Your task to perform on an android device: Search for Italian restaurants on Maps Image 0: 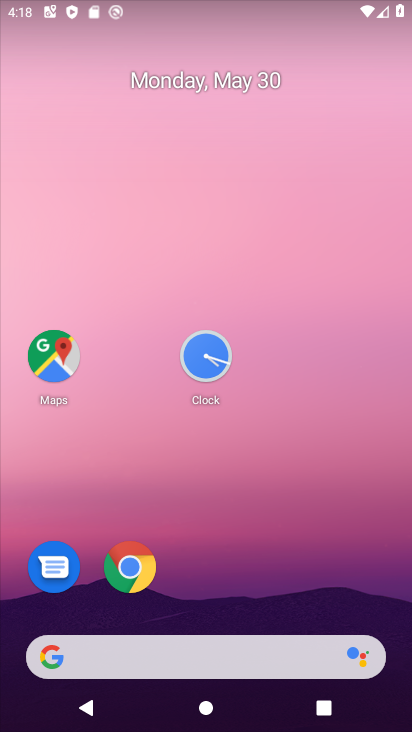
Step 0: drag from (298, 514) to (249, 68)
Your task to perform on an android device: Search for Italian restaurants on Maps Image 1: 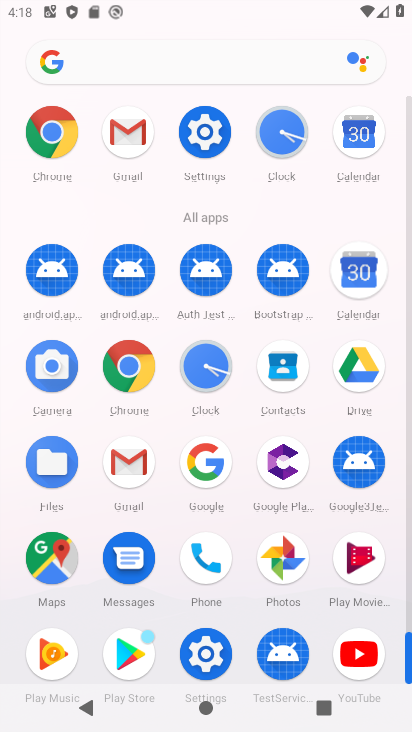
Step 1: click (47, 564)
Your task to perform on an android device: Search for Italian restaurants on Maps Image 2: 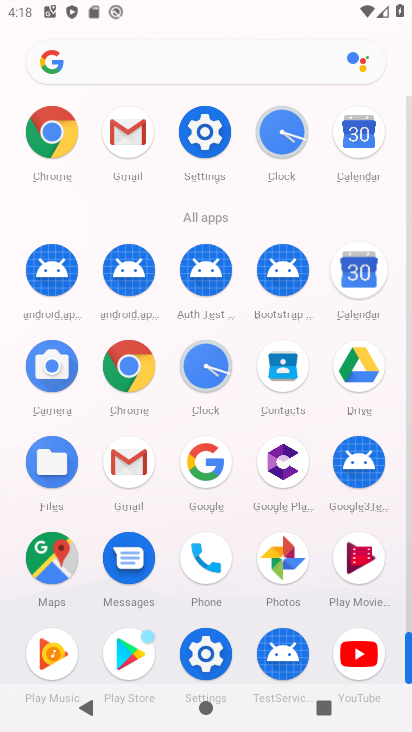
Step 2: click (46, 563)
Your task to perform on an android device: Search for Italian restaurants on Maps Image 3: 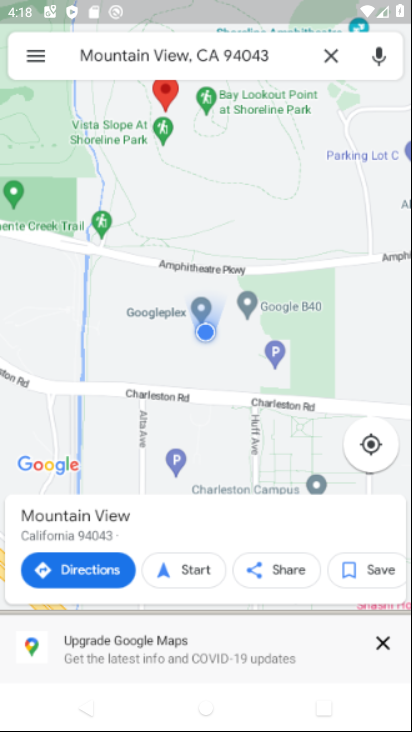
Step 3: click (46, 563)
Your task to perform on an android device: Search for Italian restaurants on Maps Image 4: 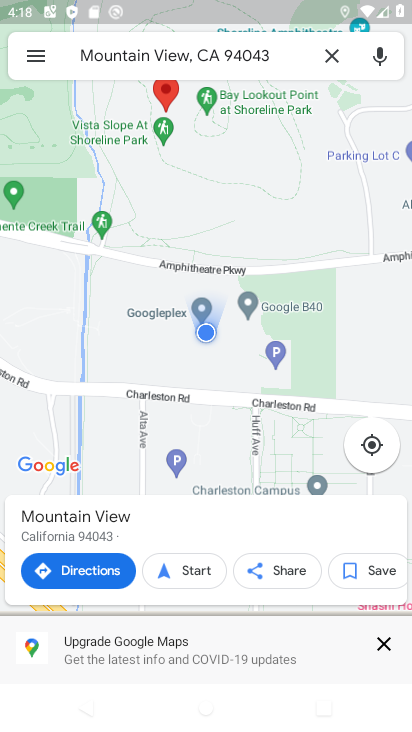
Step 4: press back button
Your task to perform on an android device: Search for Italian restaurants on Maps Image 5: 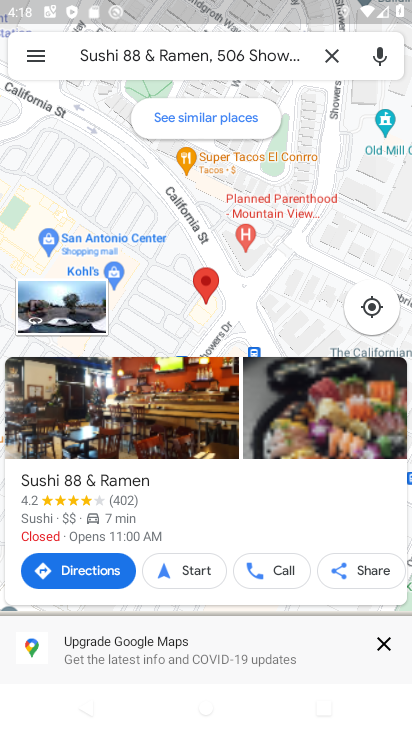
Step 5: click (323, 61)
Your task to perform on an android device: Search for Italian restaurants on Maps Image 6: 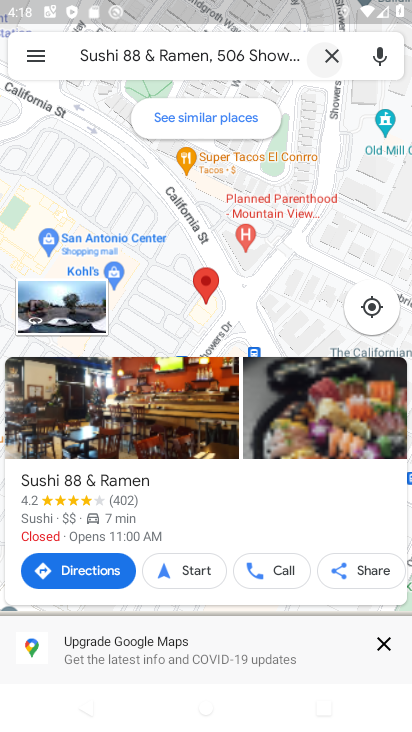
Step 6: click (323, 61)
Your task to perform on an android device: Search for Italian restaurants on Maps Image 7: 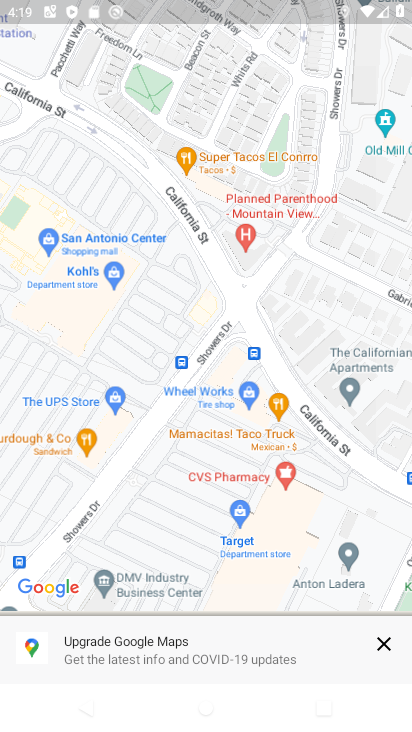
Step 7: click (69, 53)
Your task to perform on an android device: Search for Italian restaurants on Maps Image 8: 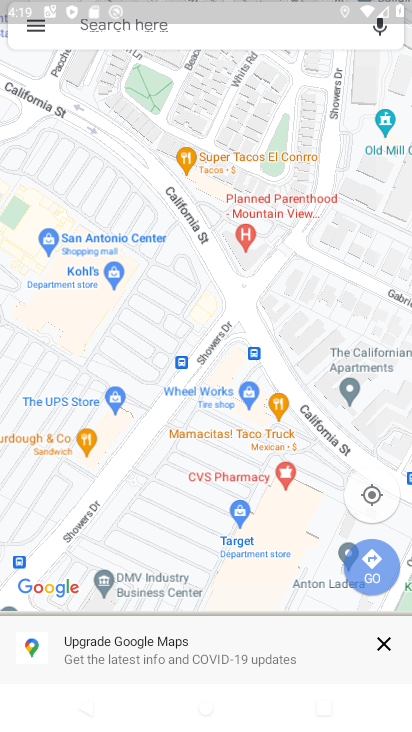
Step 8: drag from (153, 235) to (184, 411)
Your task to perform on an android device: Search for Italian restaurants on Maps Image 9: 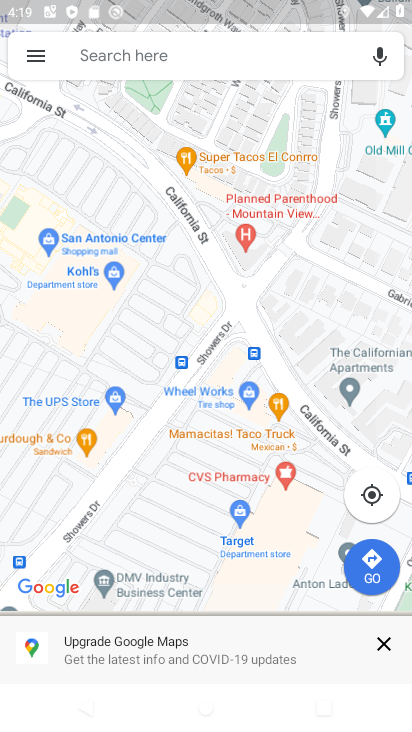
Step 9: drag from (180, 98) to (220, 335)
Your task to perform on an android device: Search for Italian restaurants on Maps Image 10: 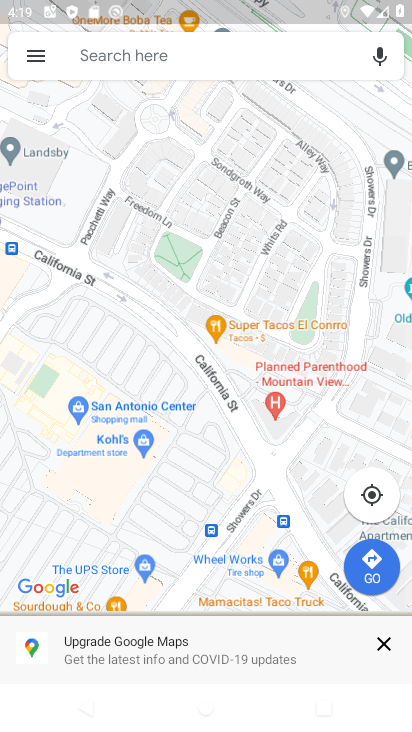
Step 10: drag from (195, 105) to (204, 310)
Your task to perform on an android device: Search for Italian restaurants on Maps Image 11: 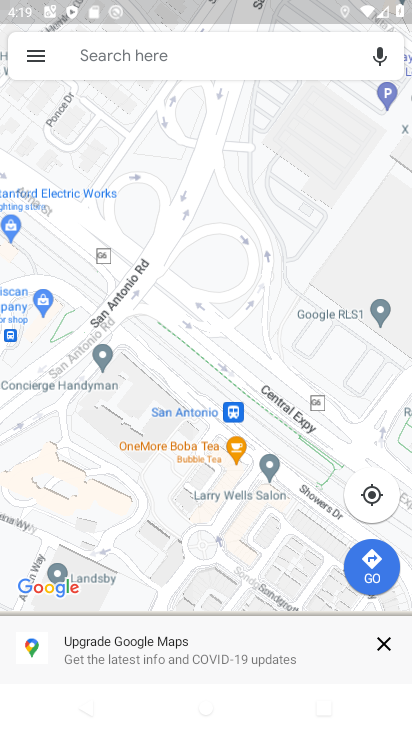
Step 11: click (86, 52)
Your task to perform on an android device: Search for Italian restaurants on Maps Image 12: 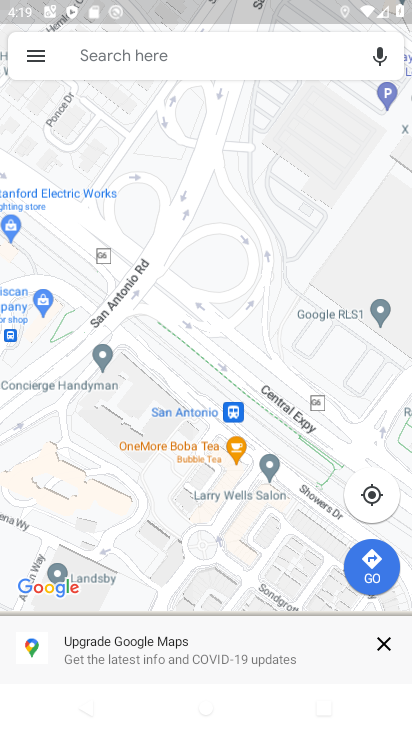
Step 12: click (86, 52)
Your task to perform on an android device: Search for Italian restaurants on Maps Image 13: 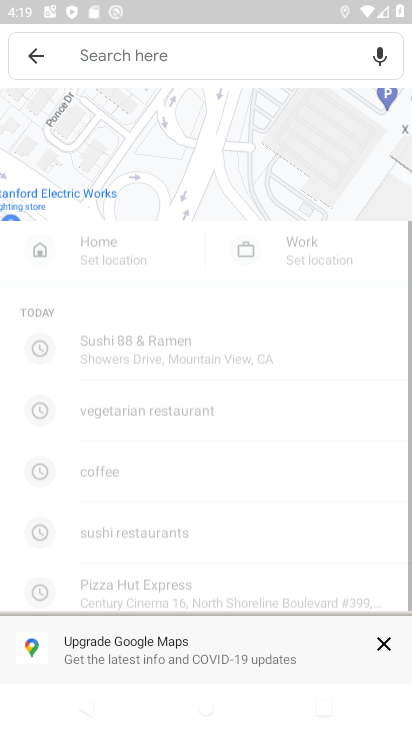
Step 13: click (86, 52)
Your task to perform on an android device: Search for Italian restaurants on Maps Image 14: 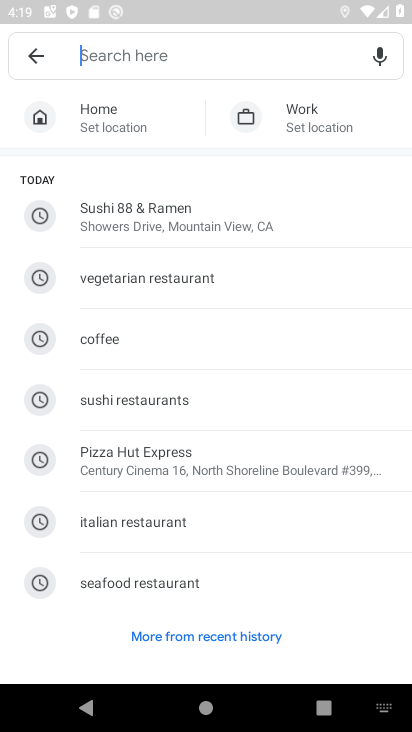
Step 14: click (85, 54)
Your task to perform on an android device: Search for Italian restaurants on Maps Image 15: 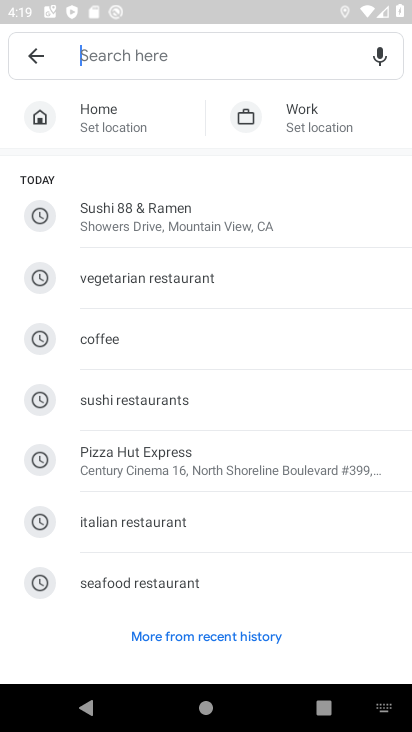
Step 15: click (79, 55)
Your task to perform on an android device: Search for Italian restaurants on Maps Image 16: 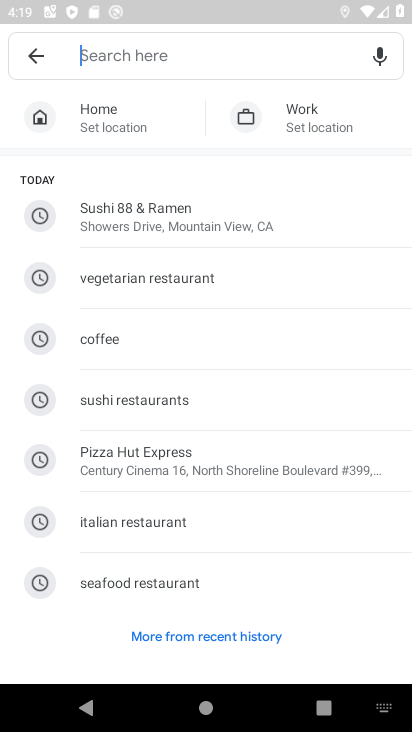
Step 16: click (127, 522)
Your task to perform on an android device: Search for Italian restaurants on Maps Image 17: 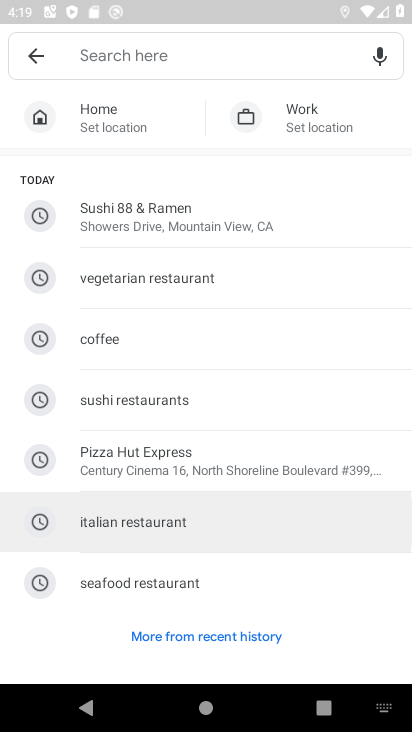
Step 17: click (127, 522)
Your task to perform on an android device: Search for Italian restaurants on Maps Image 18: 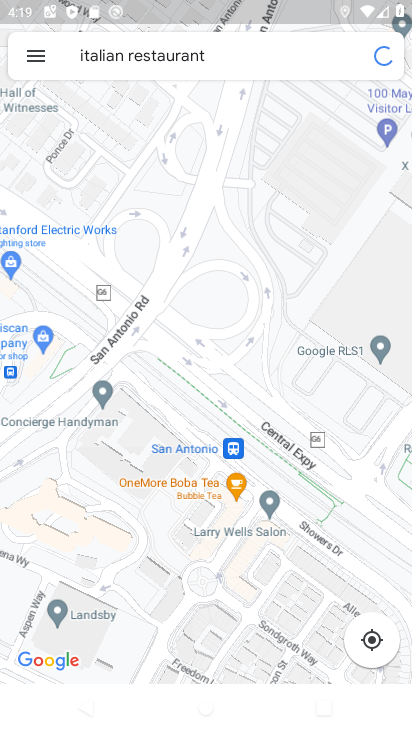
Step 18: click (134, 540)
Your task to perform on an android device: Search for Italian restaurants on Maps Image 19: 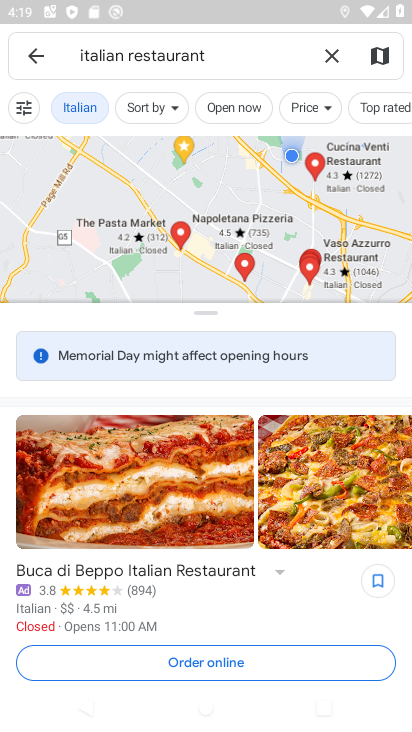
Step 19: task complete